Your task to perform on an android device: change text size in settings app Image 0: 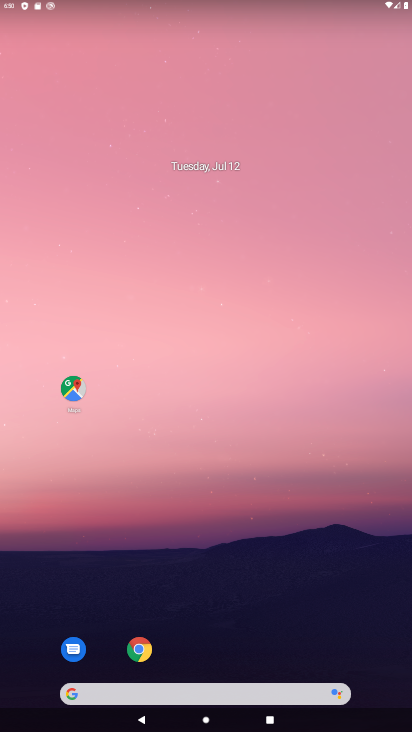
Step 0: drag from (207, 695) to (235, 227)
Your task to perform on an android device: change text size in settings app Image 1: 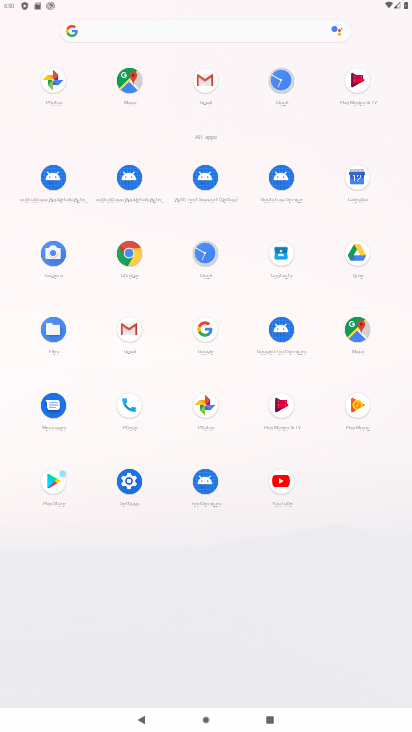
Step 1: click (125, 478)
Your task to perform on an android device: change text size in settings app Image 2: 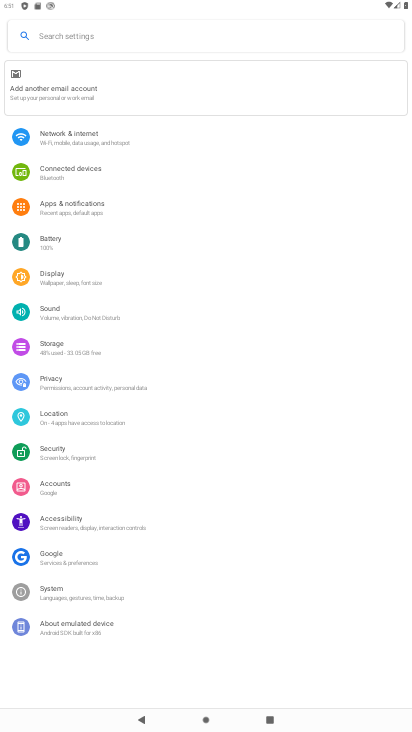
Step 2: click (69, 525)
Your task to perform on an android device: change text size in settings app Image 3: 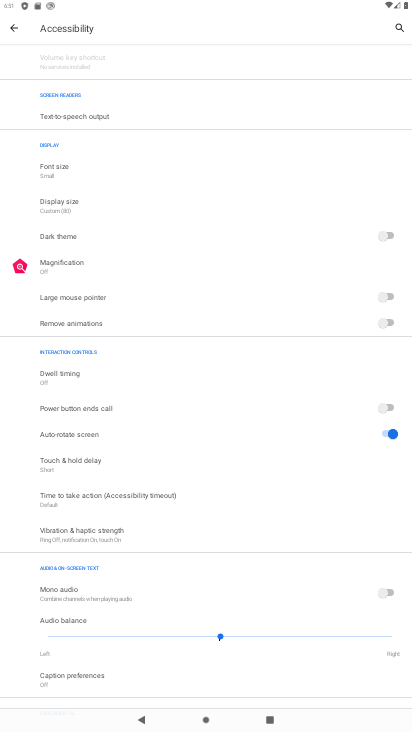
Step 3: click (50, 172)
Your task to perform on an android device: change text size in settings app Image 4: 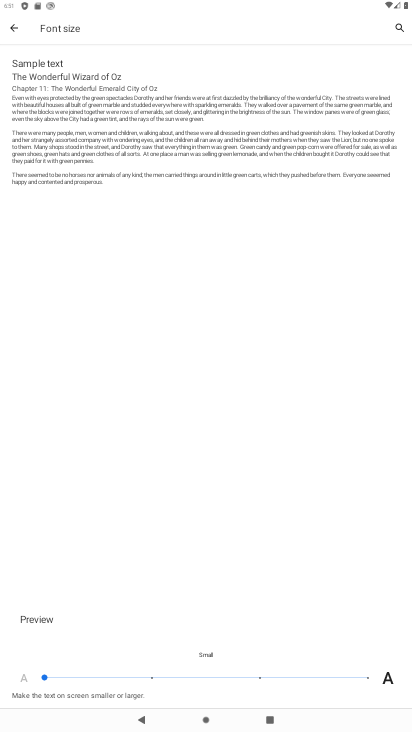
Step 4: click (369, 678)
Your task to perform on an android device: change text size in settings app Image 5: 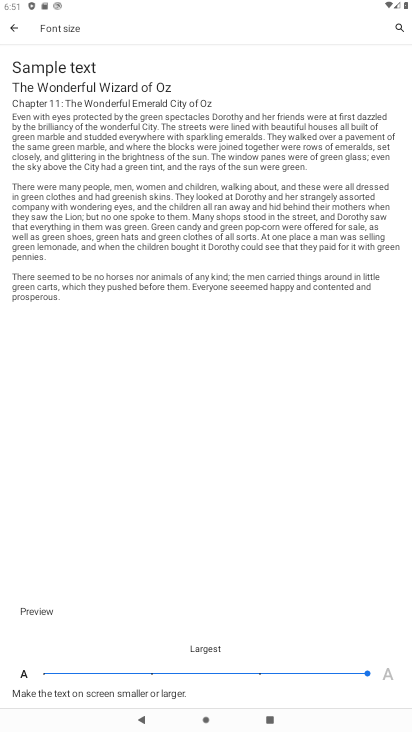
Step 5: task complete